Your task to perform on an android device: Open Amazon Image 0: 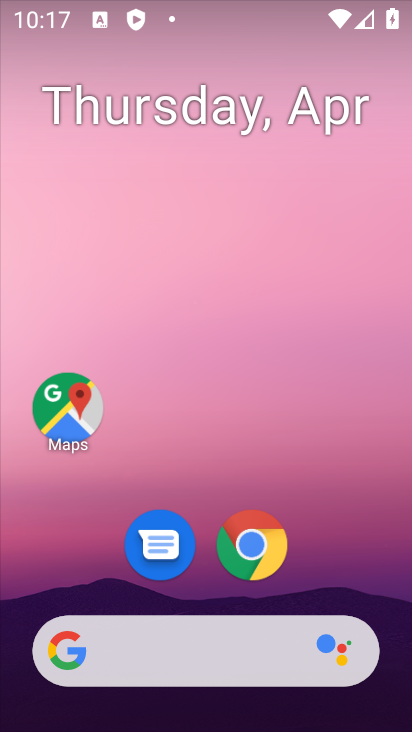
Step 0: click (260, 549)
Your task to perform on an android device: Open Amazon Image 1: 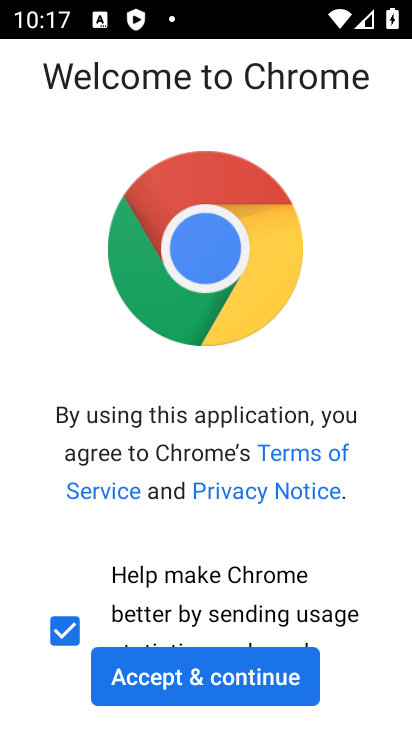
Step 1: click (210, 674)
Your task to perform on an android device: Open Amazon Image 2: 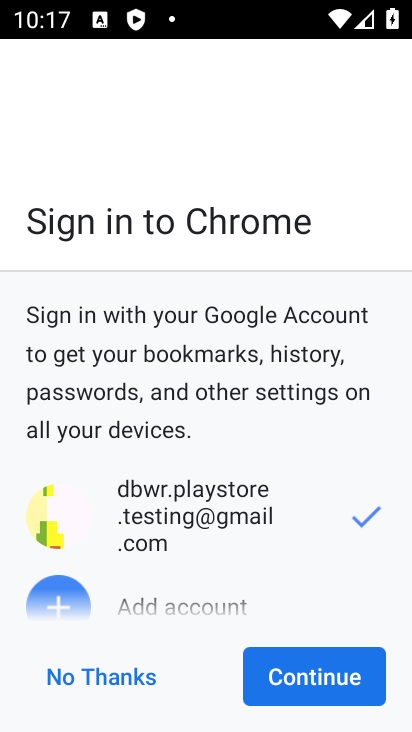
Step 2: click (74, 666)
Your task to perform on an android device: Open Amazon Image 3: 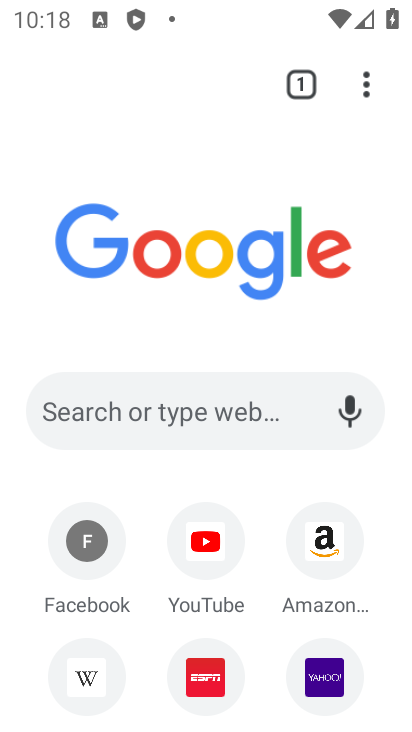
Step 3: click (324, 545)
Your task to perform on an android device: Open Amazon Image 4: 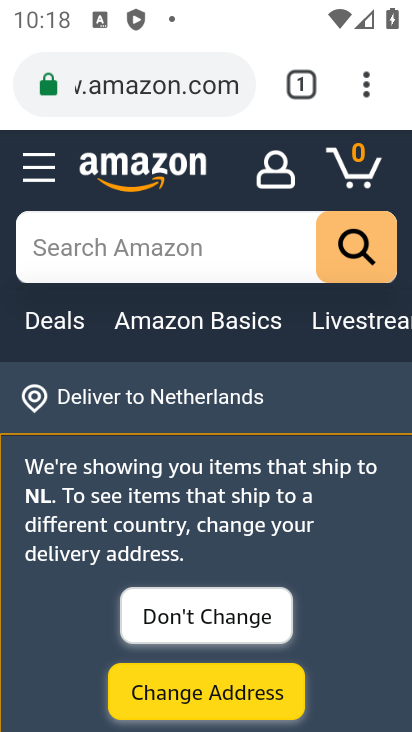
Step 4: task complete